Your task to perform on an android device: turn on priority inbox in the gmail app Image 0: 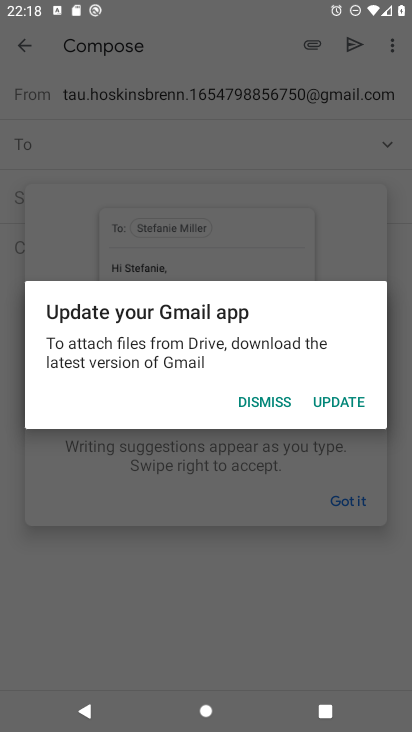
Step 0: press home button
Your task to perform on an android device: turn on priority inbox in the gmail app Image 1: 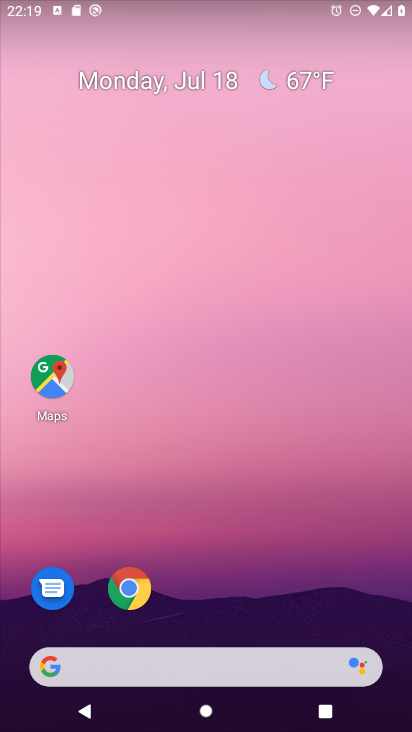
Step 1: drag from (384, 621) to (327, 216)
Your task to perform on an android device: turn on priority inbox in the gmail app Image 2: 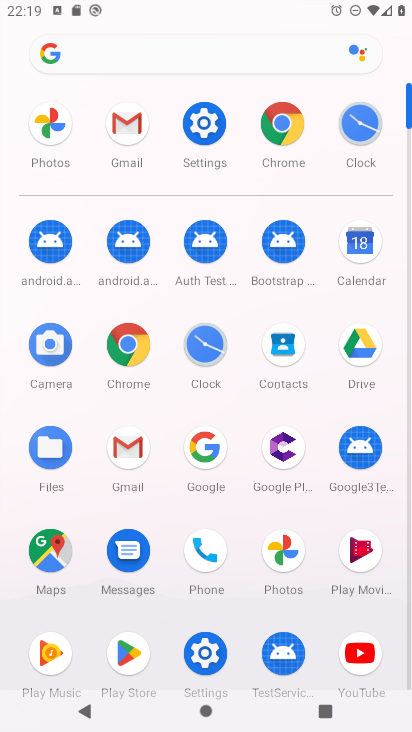
Step 2: click (127, 445)
Your task to perform on an android device: turn on priority inbox in the gmail app Image 3: 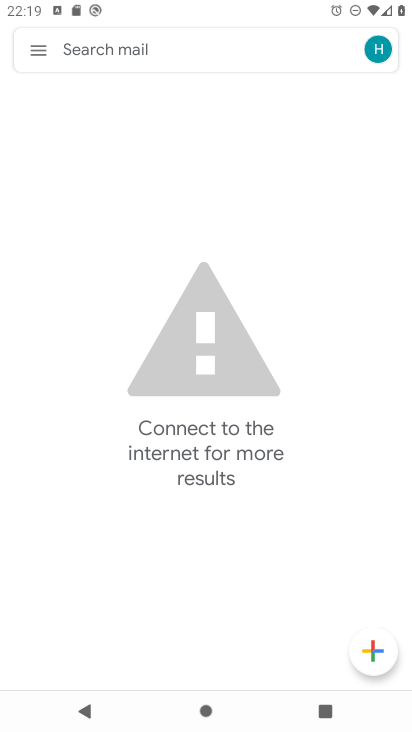
Step 3: click (41, 50)
Your task to perform on an android device: turn on priority inbox in the gmail app Image 4: 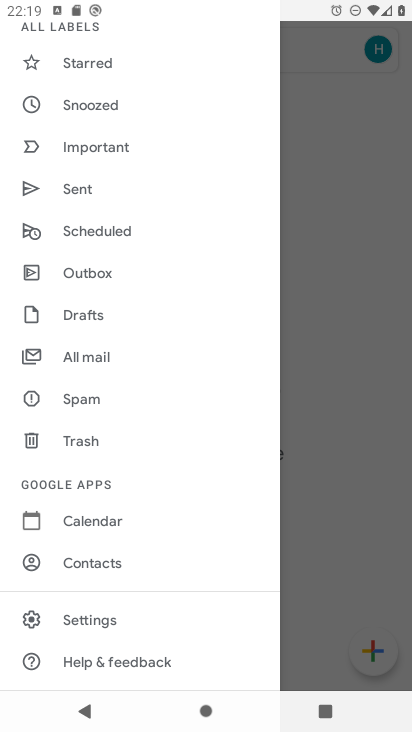
Step 4: click (88, 615)
Your task to perform on an android device: turn on priority inbox in the gmail app Image 5: 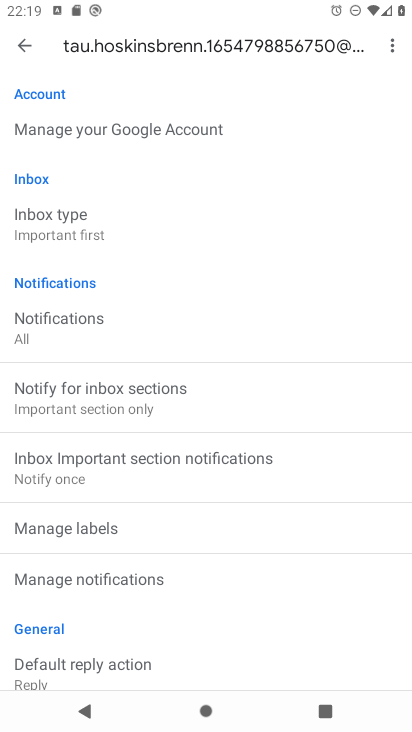
Step 5: click (63, 217)
Your task to perform on an android device: turn on priority inbox in the gmail app Image 6: 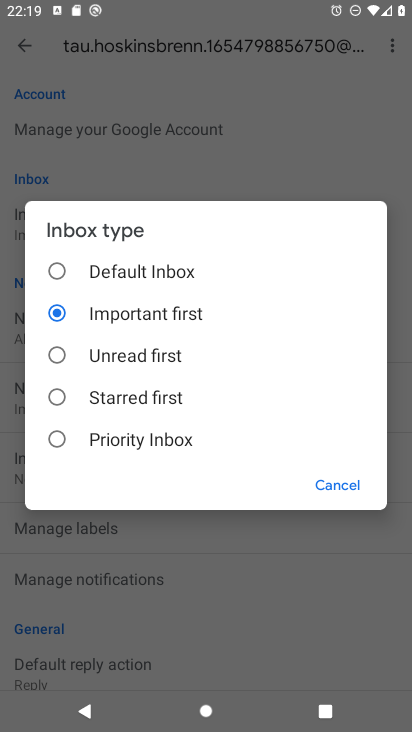
Step 6: click (62, 440)
Your task to perform on an android device: turn on priority inbox in the gmail app Image 7: 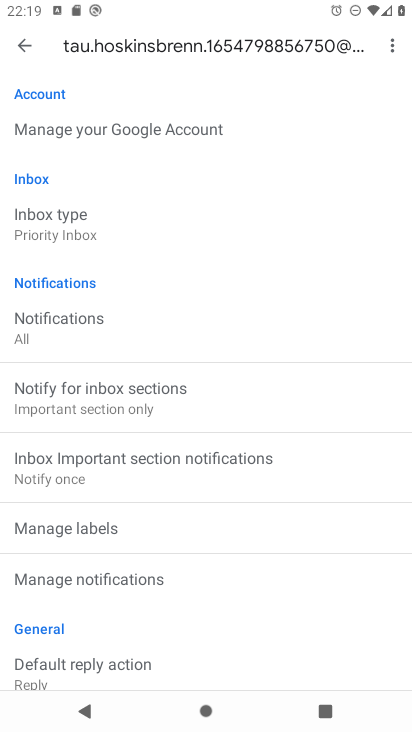
Step 7: task complete